Your task to perform on an android device: Open the map Image 0: 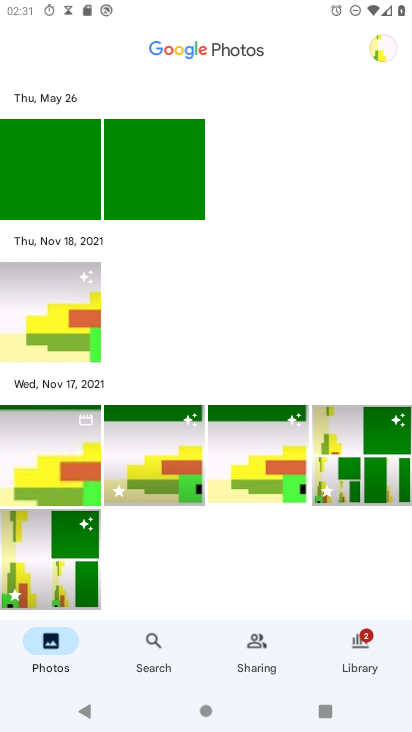
Step 0: press home button
Your task to perform on an android device: Open the map Image 1: 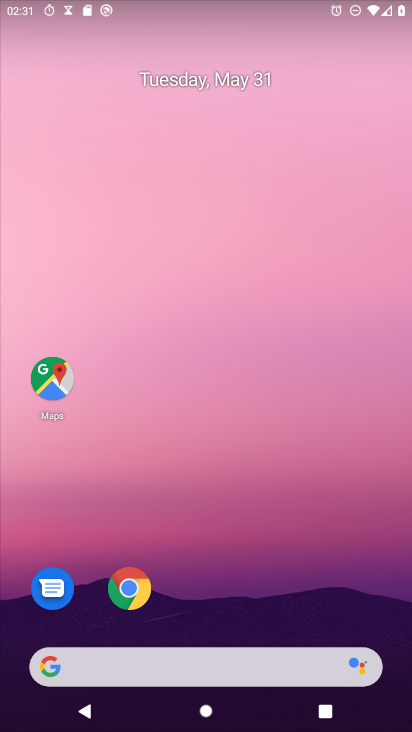
Step 1: drag from (188, 621) to (253, 35)
Your task to perform on an android device: Open the map Image 2: 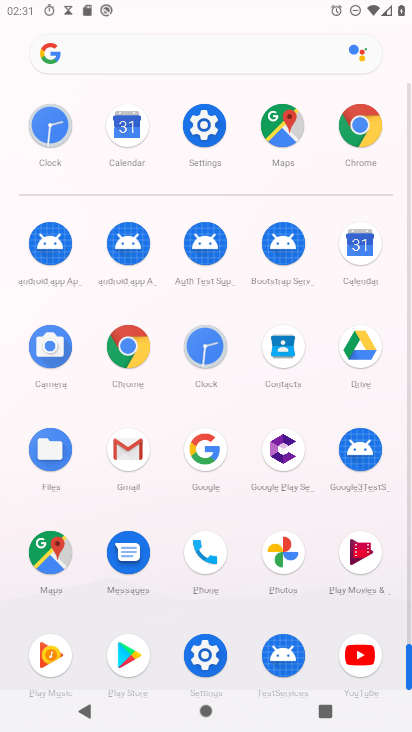
Step 2: click (40, 550)
Your task to perform on an android device: Open the map Image 3: 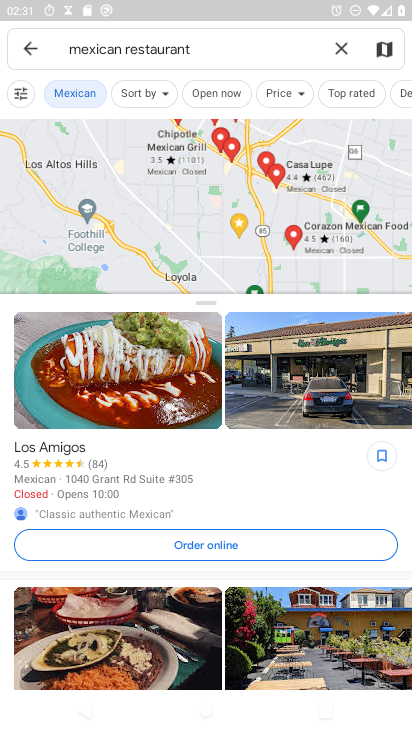
Step 3: task complete